Your task to perform on an android device: Search for sushi restaurants on Maps Image 0: 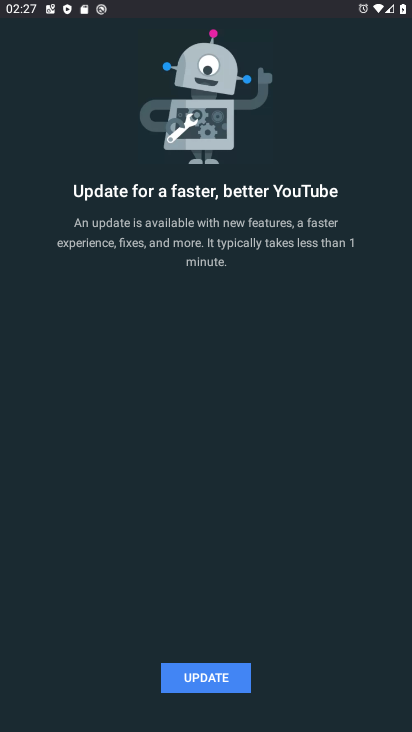
Step 0: press back button
Your task to perform on an android device: Search for sushi restaurants on Maps Image 1: 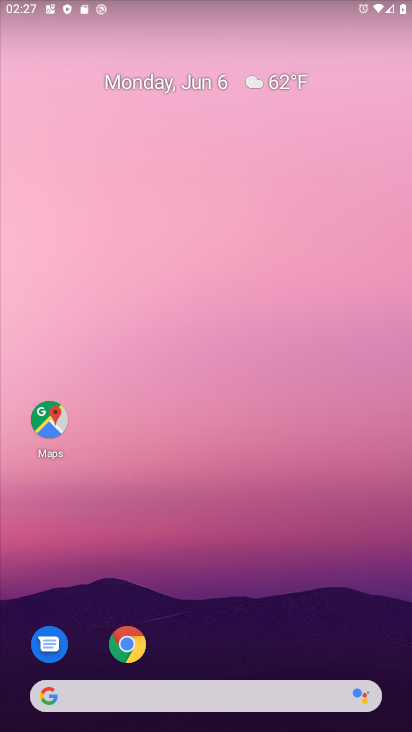
Step 1: click (52, 425)
Your task to perform on an android device: Search for sushi restaurants on Maps Image 2: 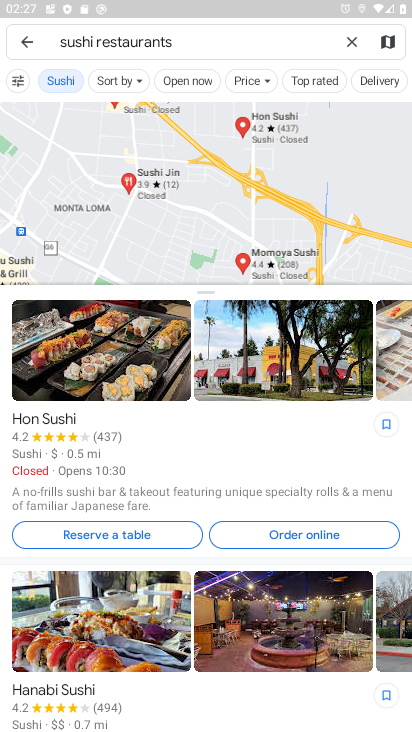
Step 2: task complete